Your task to perform on an android device: Go to battery settings Image 0: 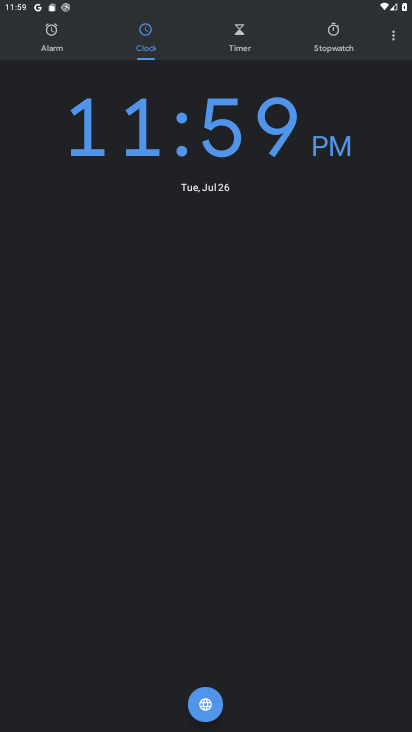
Step 0: press home button
Your task to perform on an android device: Go to battery settings Image 1: 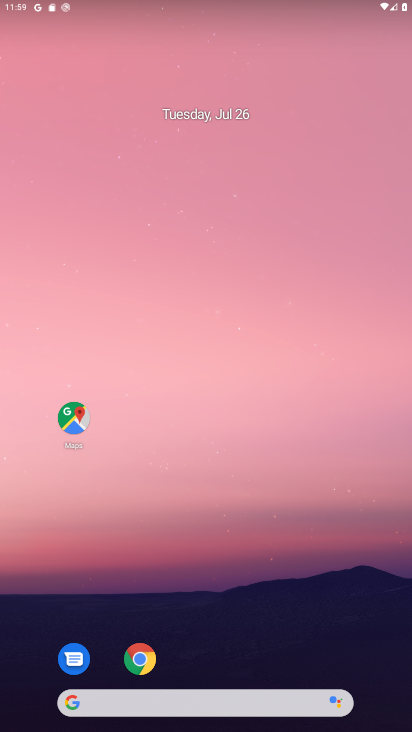
Step 1: drag from (224, 705) to (265, 1)
Your task to perform on an android device: Go to battery settings Image 2: 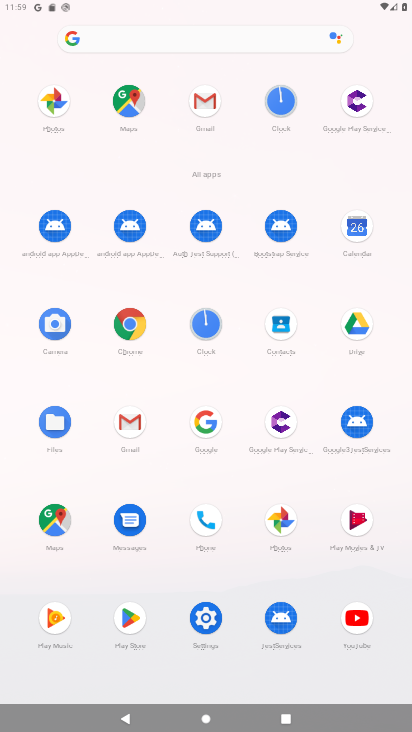
Step 2: click (202, 619)
Your task to perform on an android device: Go to battery settings Image 3: 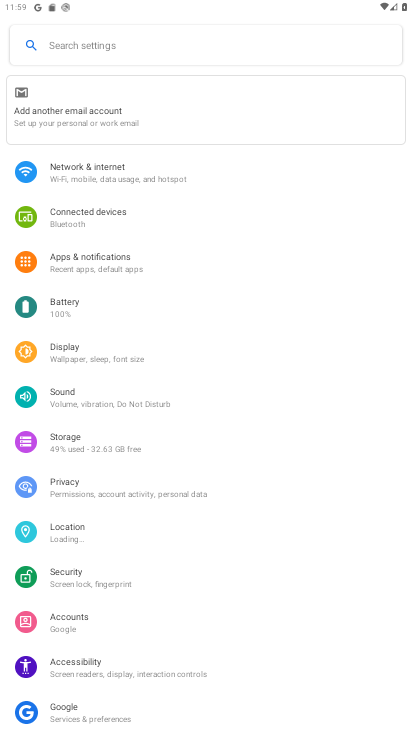
Step 3: click (52, 301)
Your task to perform on an android device: Go to battery settings Image 4: 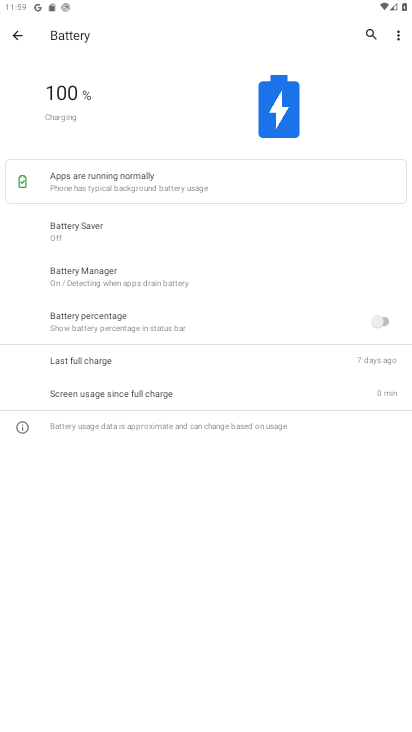
Step 4: task complete